Your task to perform on an android device: open a new tab in the chrome app Image 0: 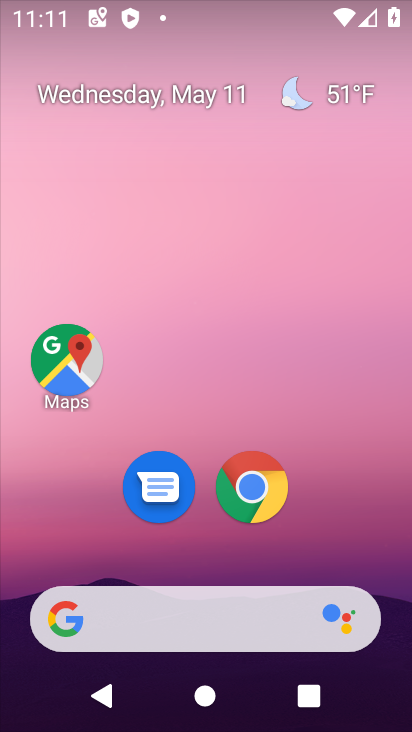
Step 0: click (274, 455)
Your task to perform on an android device: open a new tab in the chrome app Image 1: 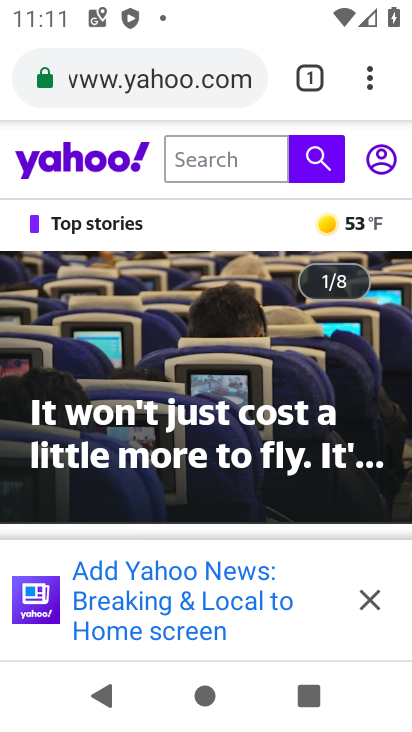
Step 1: click (317, 85)
Your task to perform on an android device: open a new tab in the chrome app Image 2: 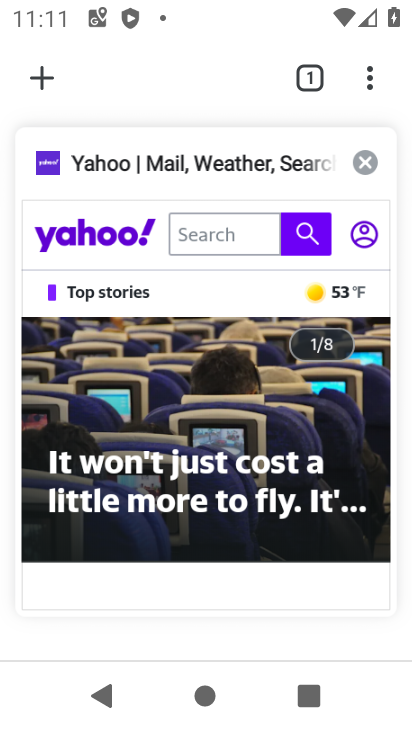
Step 2: click (49, 77)
Your task to perform on an android device: open a new tab in the chrome app Image 3: 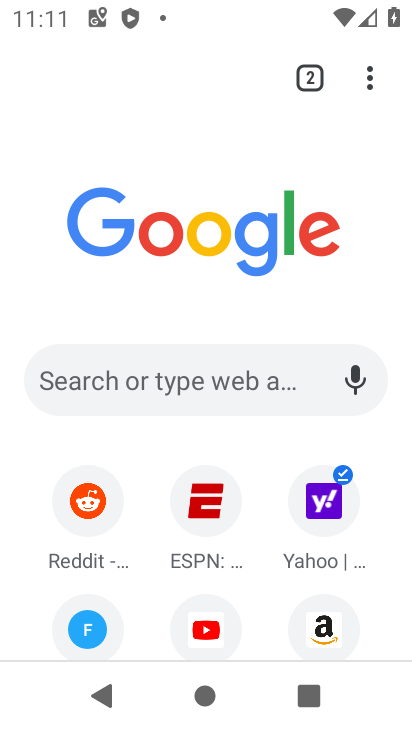
Step 3: task complete